Your task to perform on an android device: check google app version Image 0: 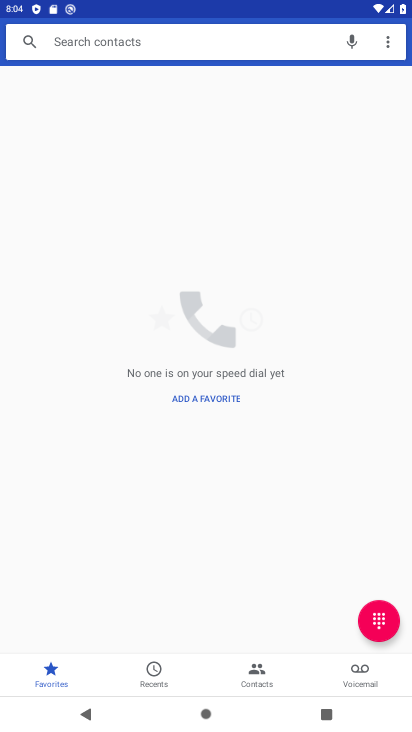
Step 0: press home button
Your task to perform on an android device: check google app version Image 1: 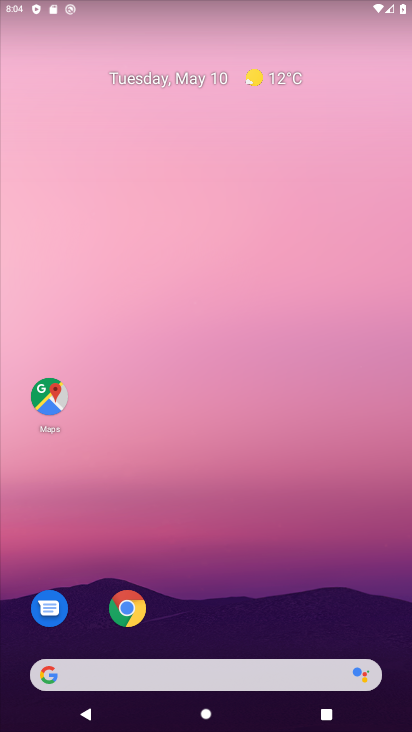
Step 1: drag from (174, 667) to (145, 134)
Your task to perform on an android device: check google app version Image 2: 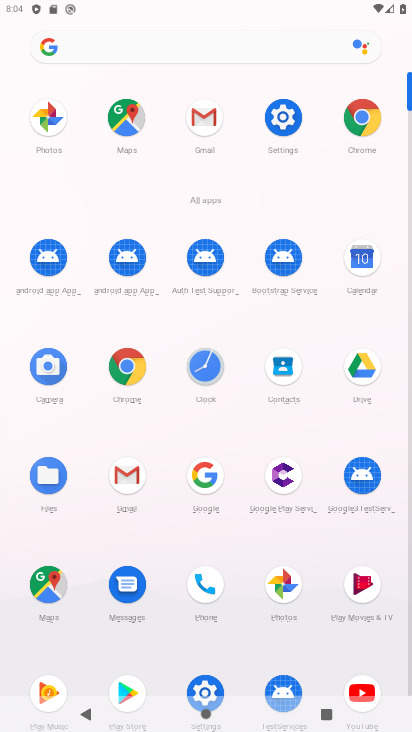
Step 2: click (208, 471)
Your task to perform on an android device: check google app version Image 3: 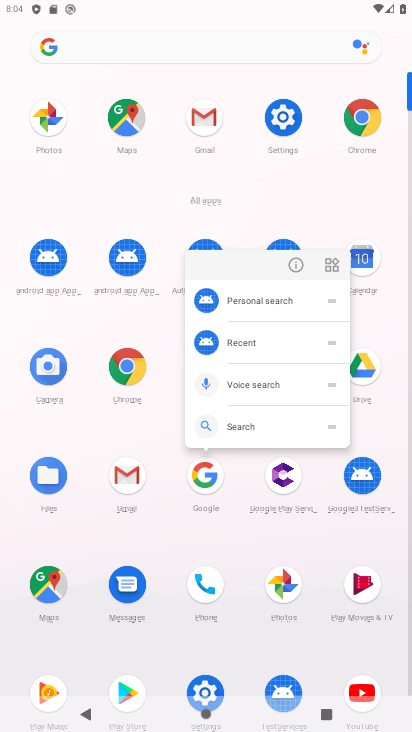
Step 3: click (289, 266)
Your task to perform on an android device: check google app version Image 4: 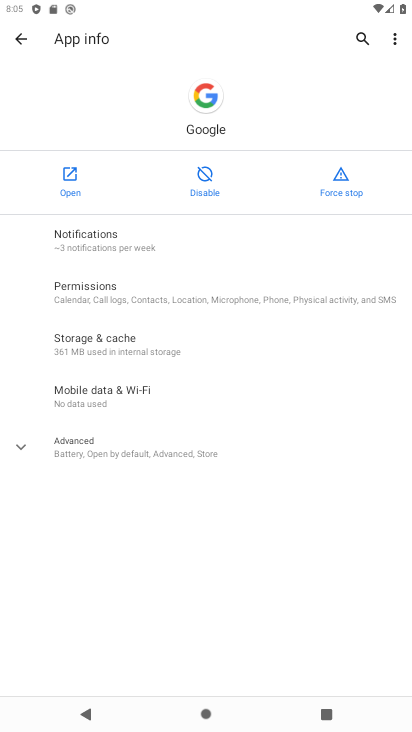
Step 4: click (166, 442)
Your task to perform on an android device: check google app version Image 5: 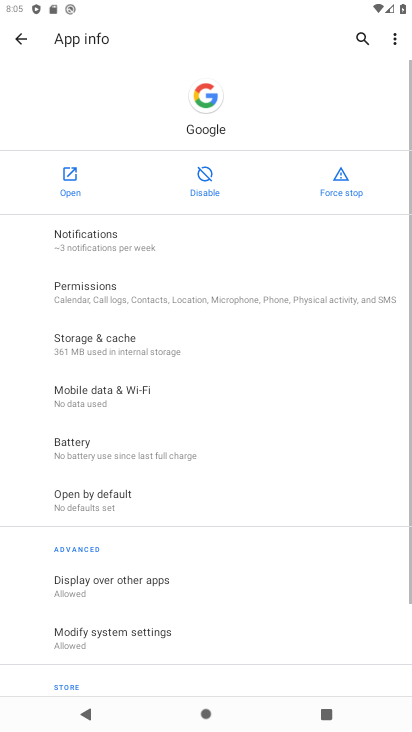
Step 5: task complete